Your task to perform on an android device: When is my next meeting? Image 0: 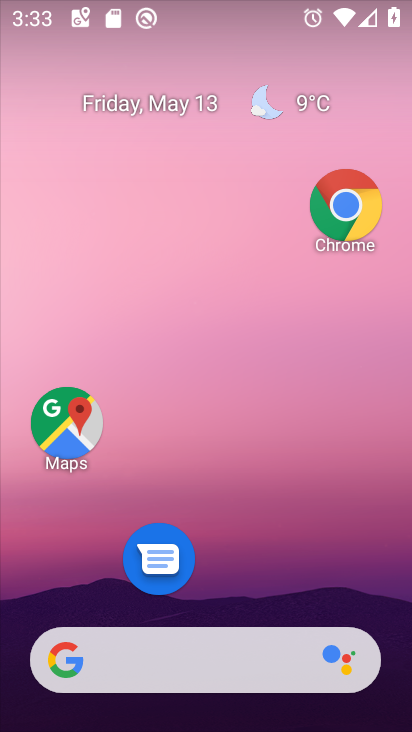
Step 0: drag from (226, 426) to (315, 35)
Your task to perform on an android device: When is my next meeting? Image 1: 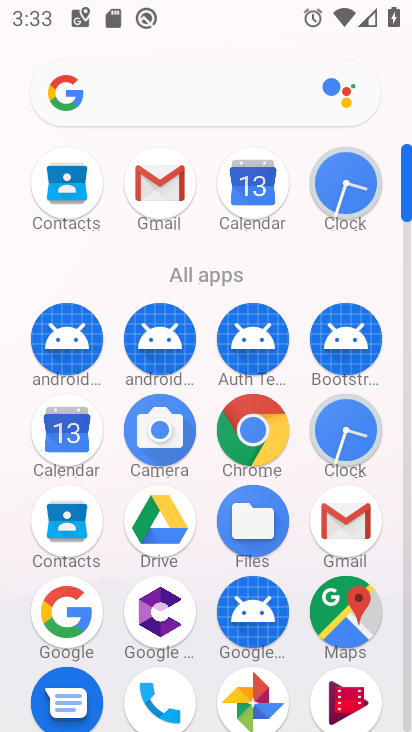
Step 1: click (67, 434)
Your task to perform on an android device: When is my next meeting? Image 2: 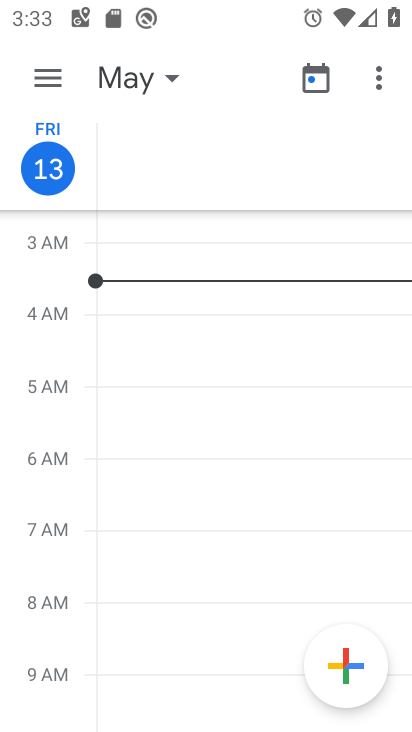
Step 2: click (47, 83)
Your task to perform on an android device: When is my next meeting? Image 3: 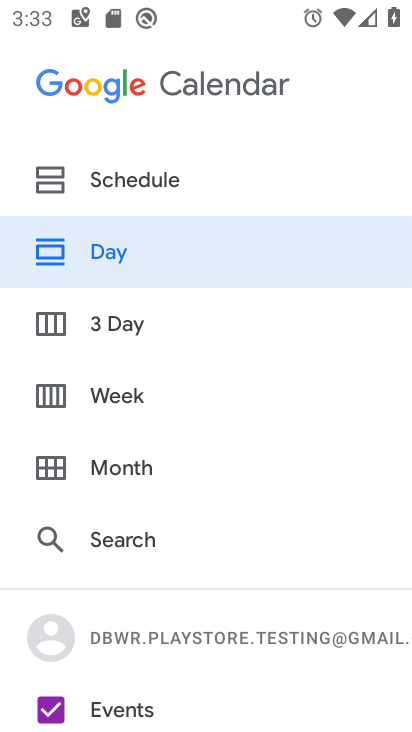
Step 3: click (138, 171)
Your task to perform on an android device: When is my next meeting? Image 4: 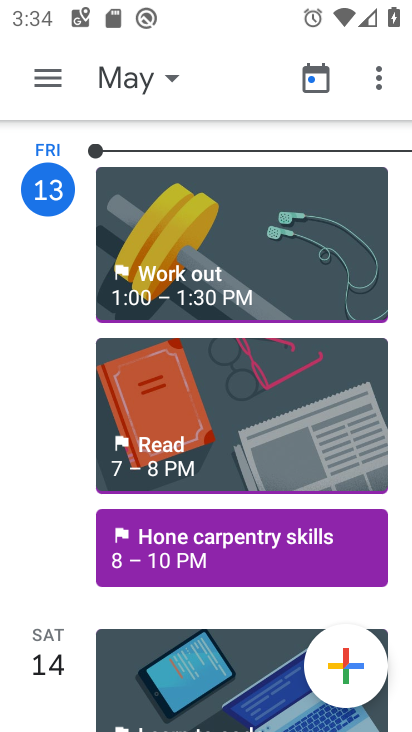
Step 4: task complete